Your task to perform on an android device: What's on my calendar tomorrow? Image 0: 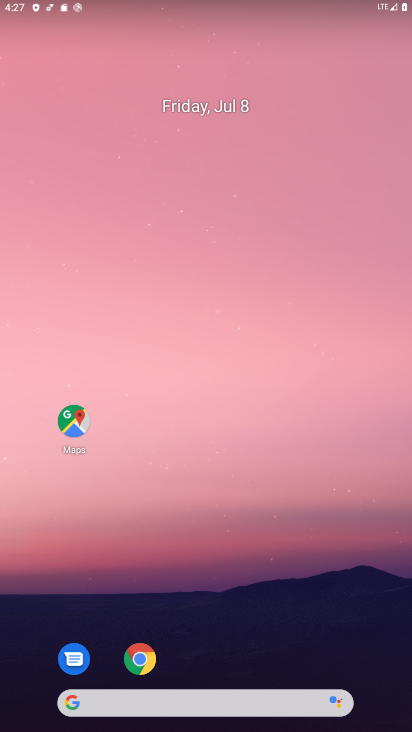
Step 0: drag from (267, 668) to (254, 104)
Your task to perform on an android device: What's on my calendar tomorrow? Image 1: 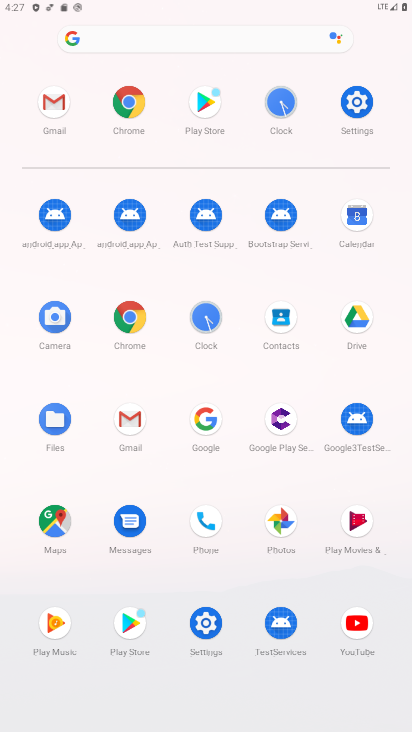
Step 1: click (339, 245)
Your task to perform on an android device: What's on my calendar tomorrow? Image 2: 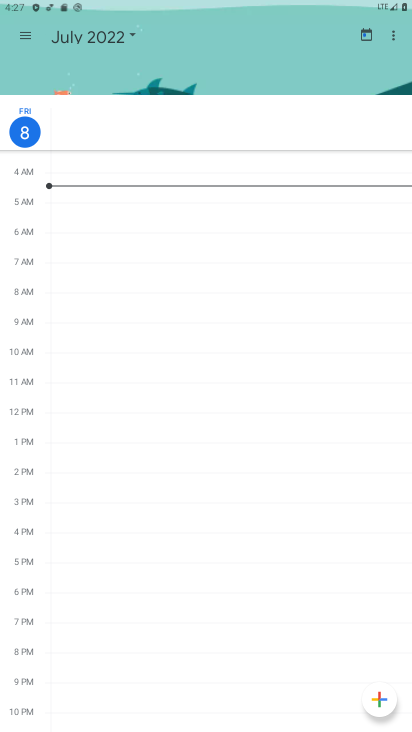
Step 2: click (131, 36)
Your task to perform on an android device: What's on my calendar tomorrow? Image 3: 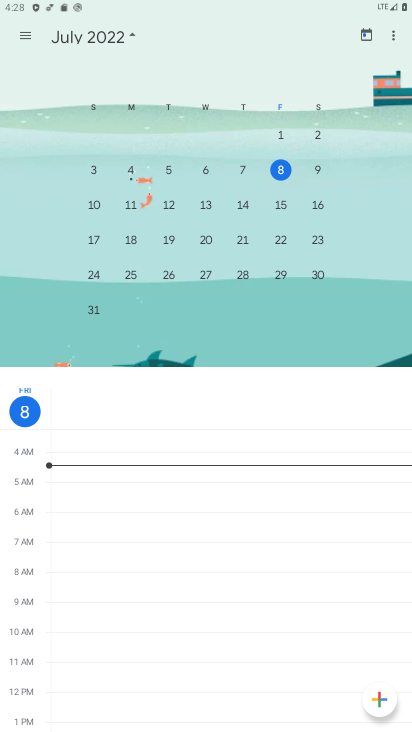
Step 3: click (319, 169)
Your task to perform on an android device: What's on my calendar tomorrow? Image 4: 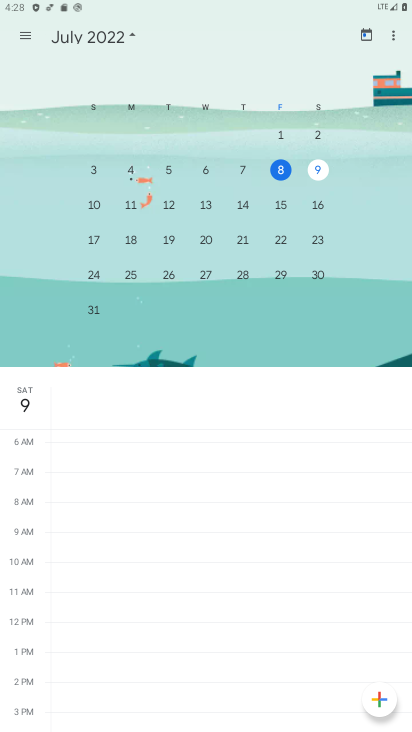
Step 4: task complete